Your task to perform on an android device: Open internet settings Image 0: 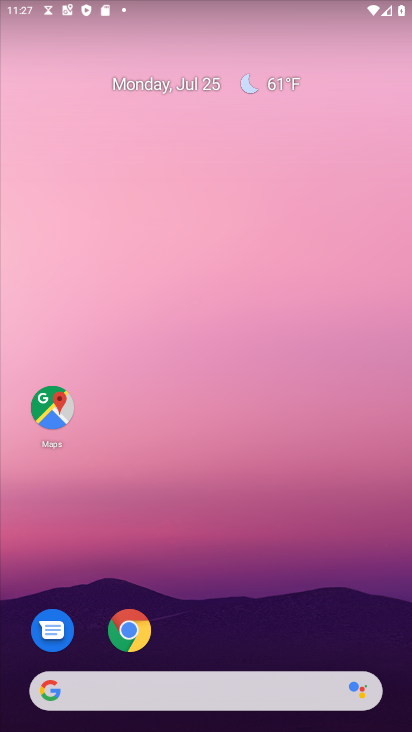
Step 0: drag from (236, 630) to (213, 51)
Your task to perform on an android device: Open internet settings Image 1: 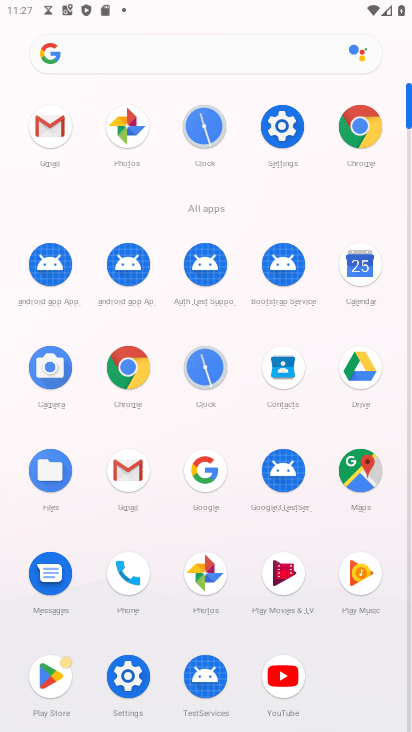
Step 1: click (283, 132)
Your task to perform on an android device: Open internet settings Image 2: 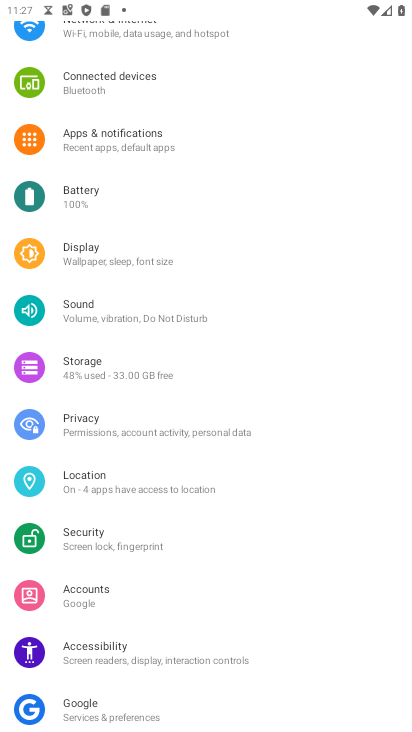
Step 2: click (112, 29)
Your task to perform on an android device: Open internet settings Image 3: 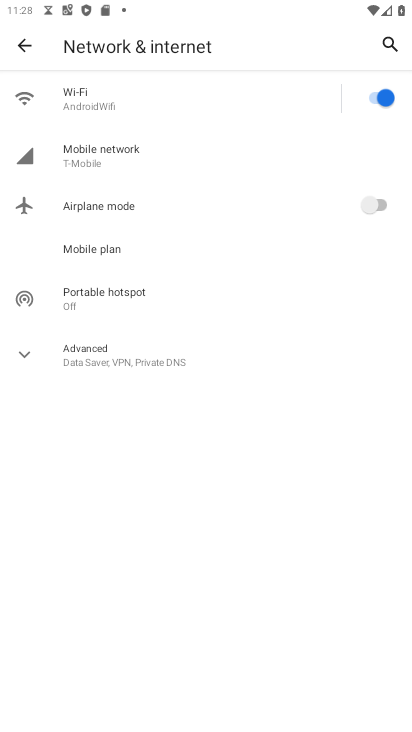
Step 3: click (129, 156)
Your task to perform on an android device: Open internet settings Image 4: 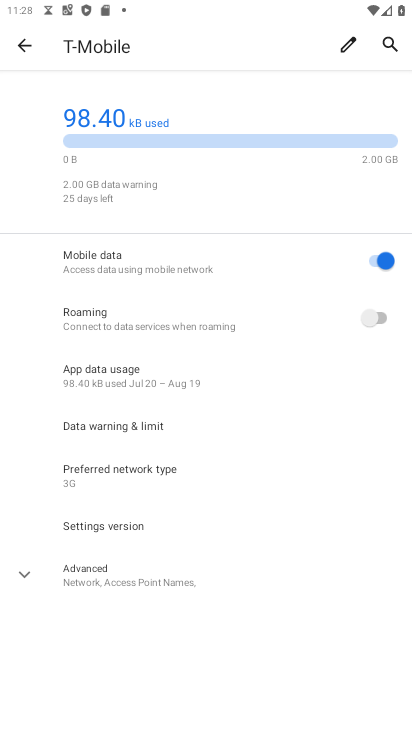
Step 4: task complete